Your task to perform on an android device: Go to Reddit.com Image 0: 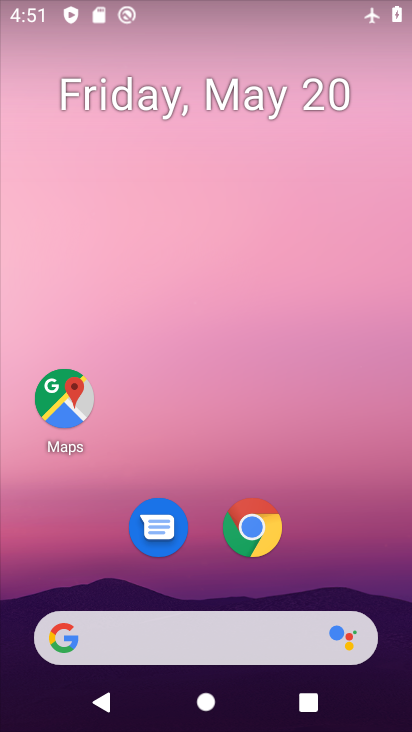
Step 0: drag from (318, 584) to (305, 89)
Your task to perform on an android device: Go to Reddit.com Image 1: 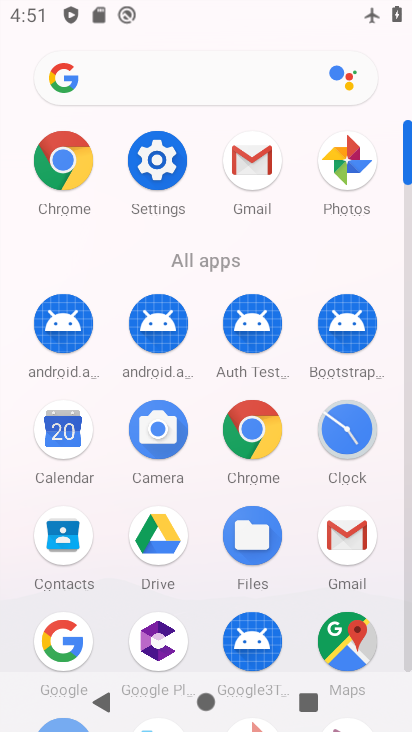
Step 1: click (260, 419)
Your task to perform on an android device: Go to Reddit.com Image 2: 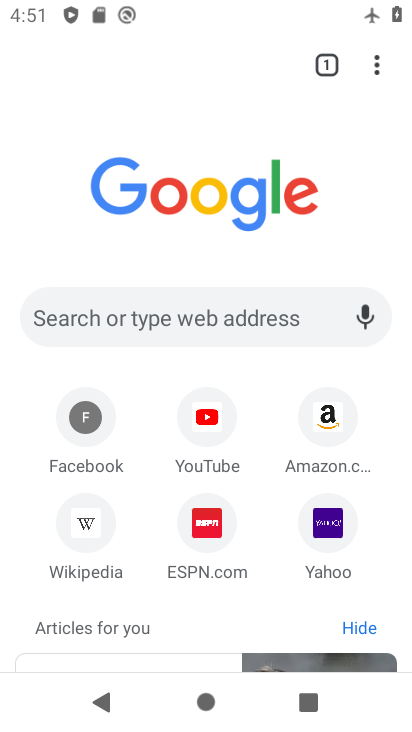
Step 2: click (228, 327)
Your task to perform on an android device: Go to Reddit.com Image 3: 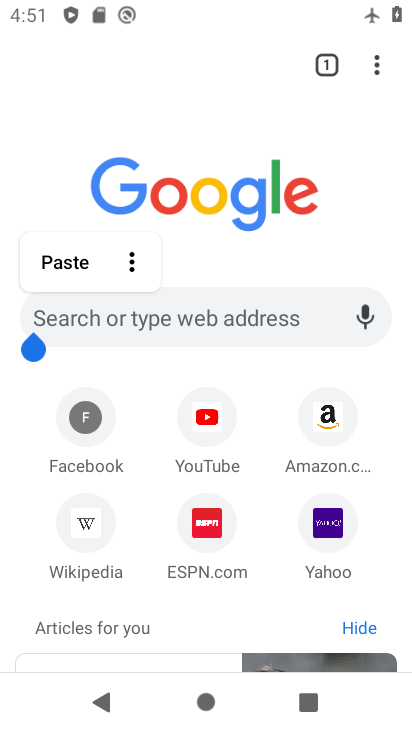
Step 3: click (228, 327)
Your task to perform on an android device: Go to Reddit.com Image 4: 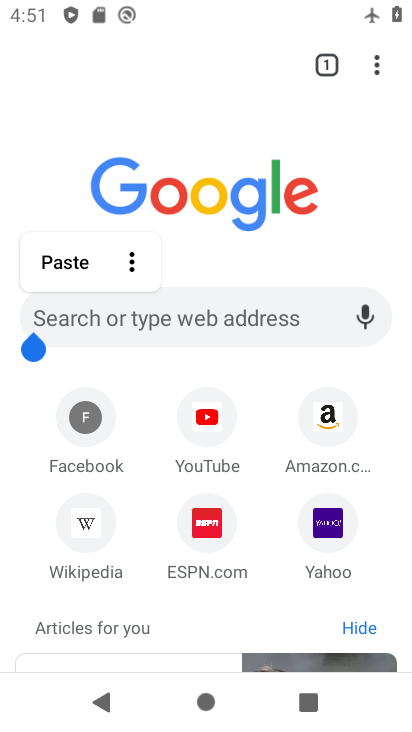
Step 4: click (228, 327)
Your task to perform on an android device: Go to Reddit.com Image 5: 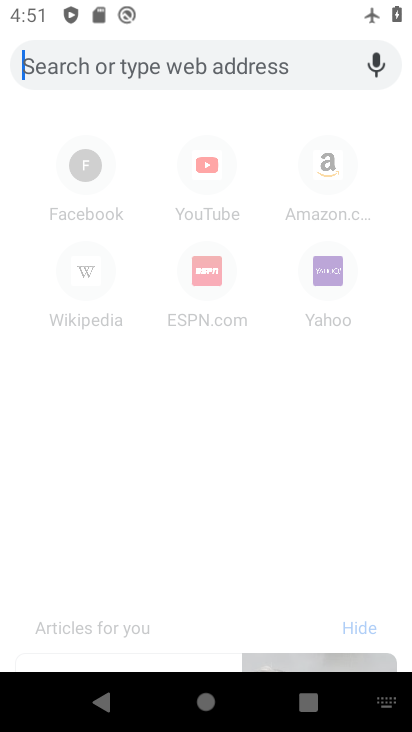
Step 5: type "reddit.com"
Your task to perform on an android device: Go to Reddit.com Image 6: 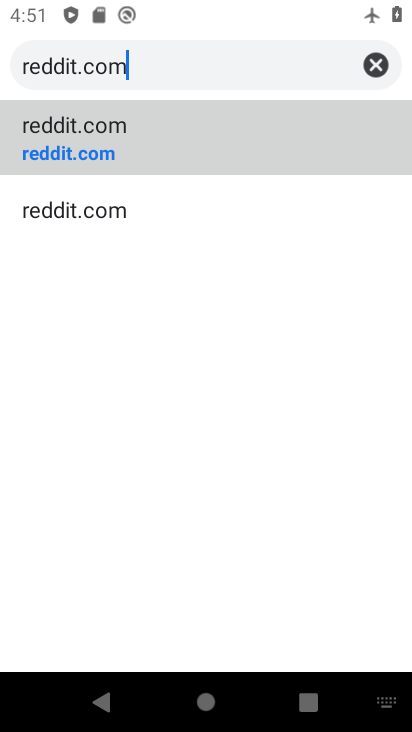
Step 6: click (111, 121)
Your task to perform on an android device: Go to Reddit.com Image 7: 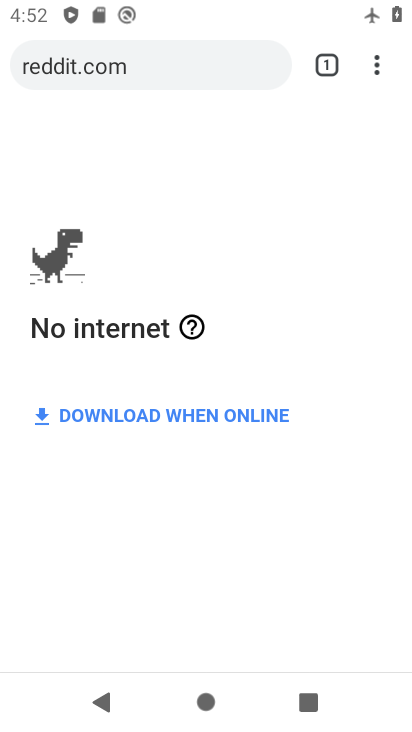
Step 7: task complete